Your task to perform on an android device: uninstall "Duolingo: language lessons" Image 0: 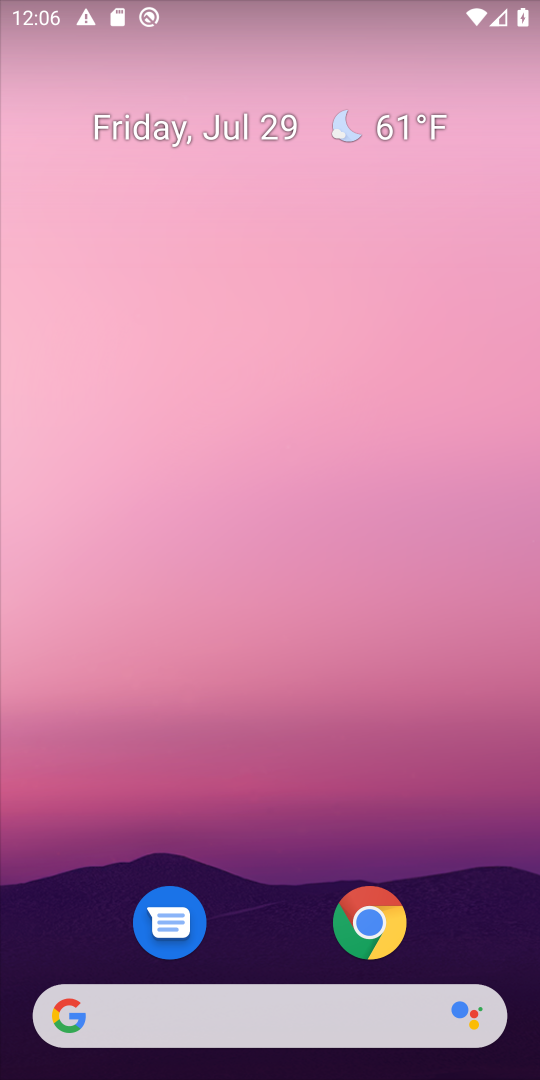
Step 0: drag from (459, 707) to (428, 81)
Your task to perform on an android device: uninstall "Duolingo: language lessons" Image 1: 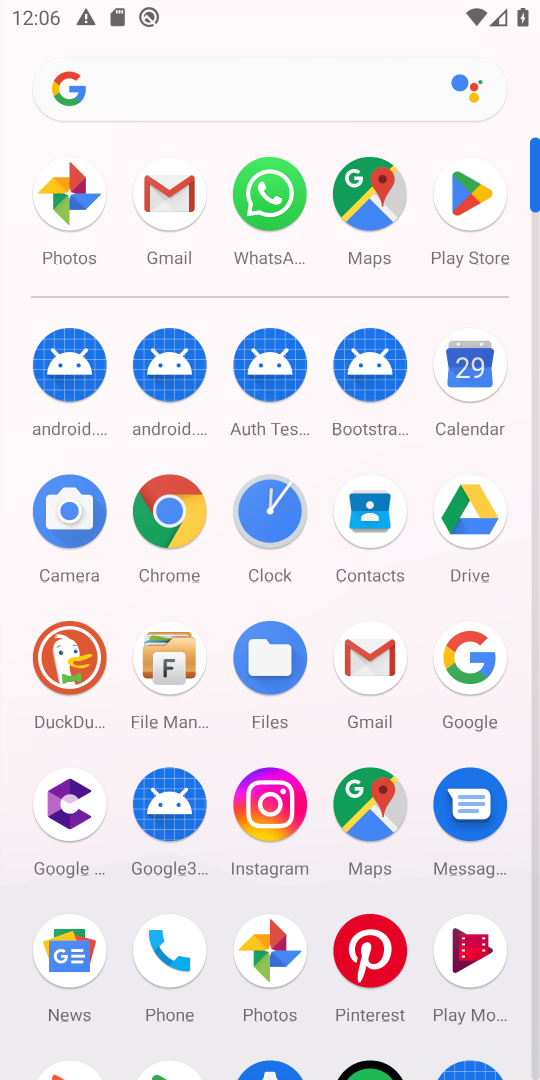
Step 1: click (464, 176)
Your task to perform on an android device: uninstall "Duolingo: language lessons" Image 2: 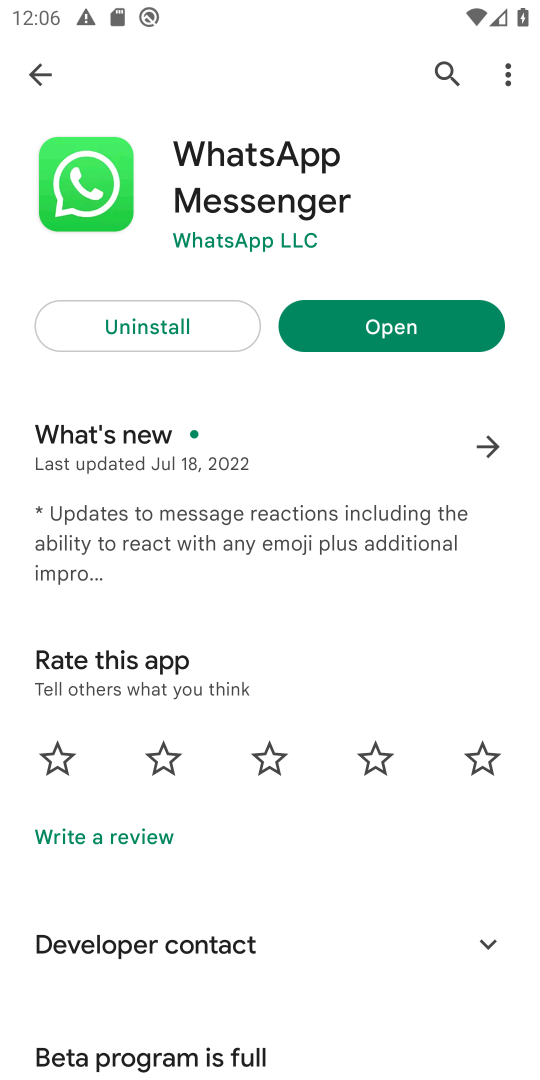
Step 2: click (438, 73)
Your task to perform on an android device: uninstall "Duolingo: language lessons" Image 3: 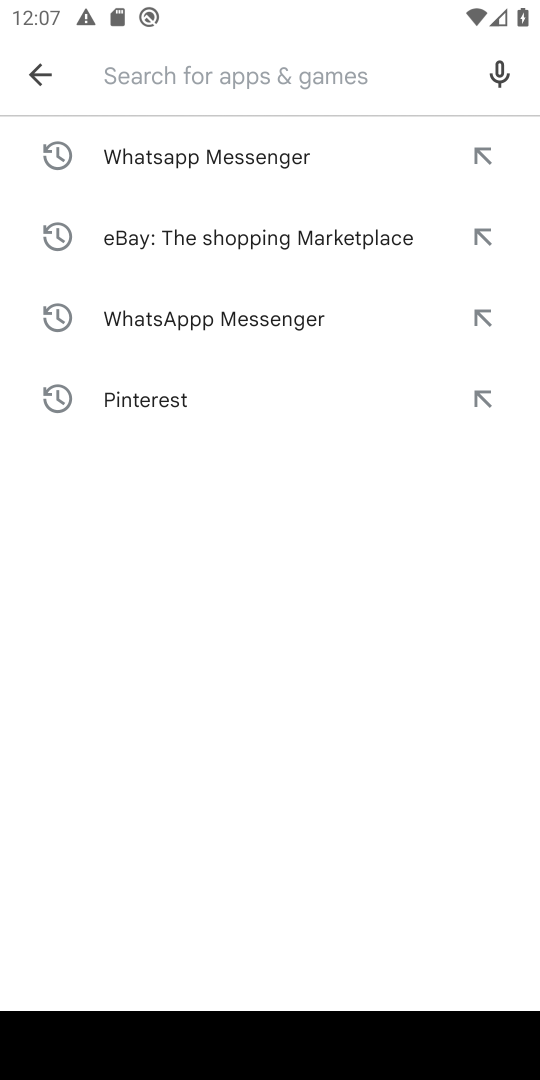
Step 3: type "Duolingo: language lessons"
Your task to perform on an android device: uninstall "Duolingo: language lessons" Image 4: 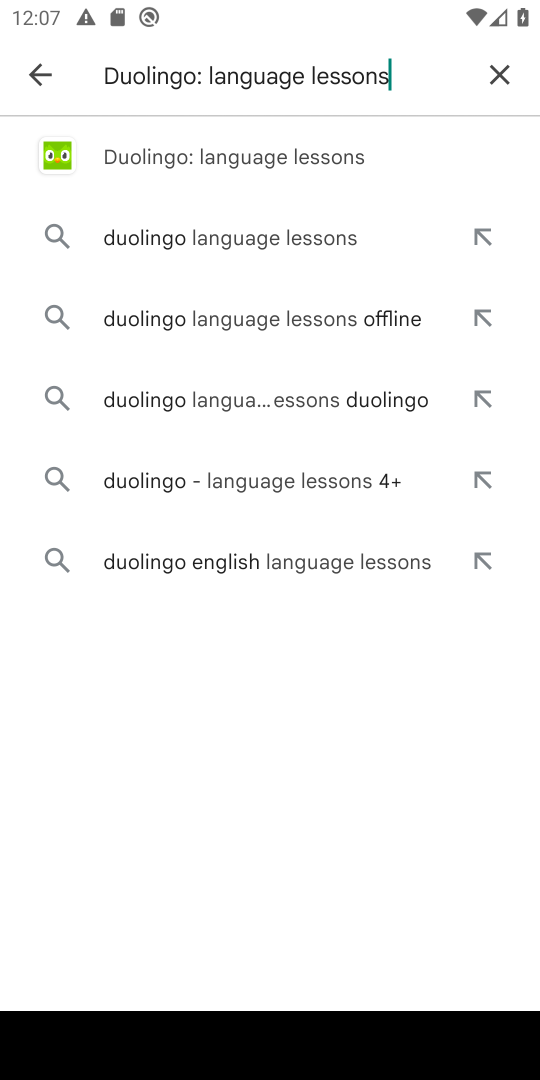
Step 4: click (138, 165)
Your task to perform on an android device: uninstall "Duolingo: language lessons" Image 5: 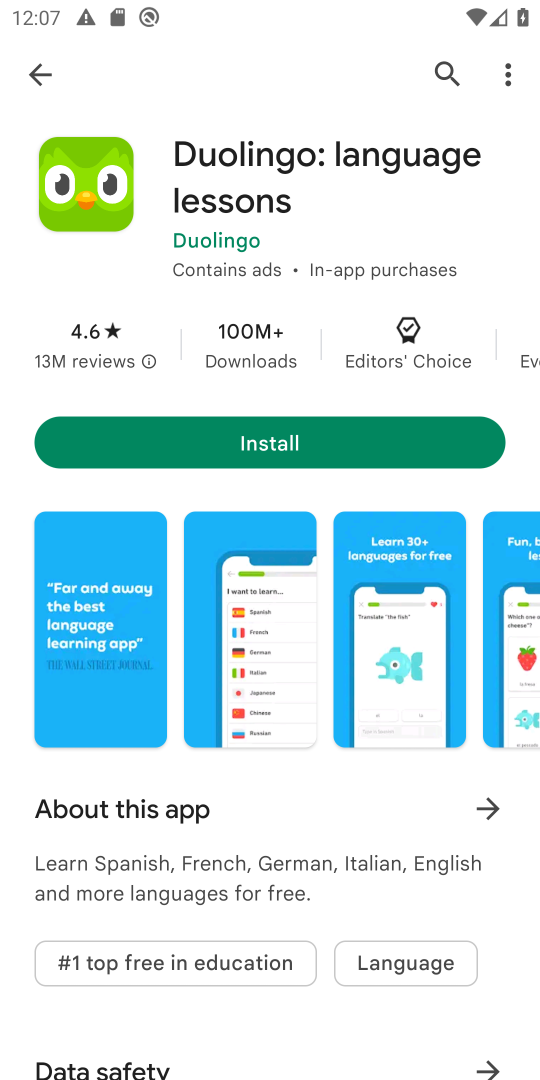
Step 5: task complete